Your task to perform on an android device: Show the shopping cart on walmart.com. Add beats solo 3 to the cart on walmart.com, then select checkout. Image 0: 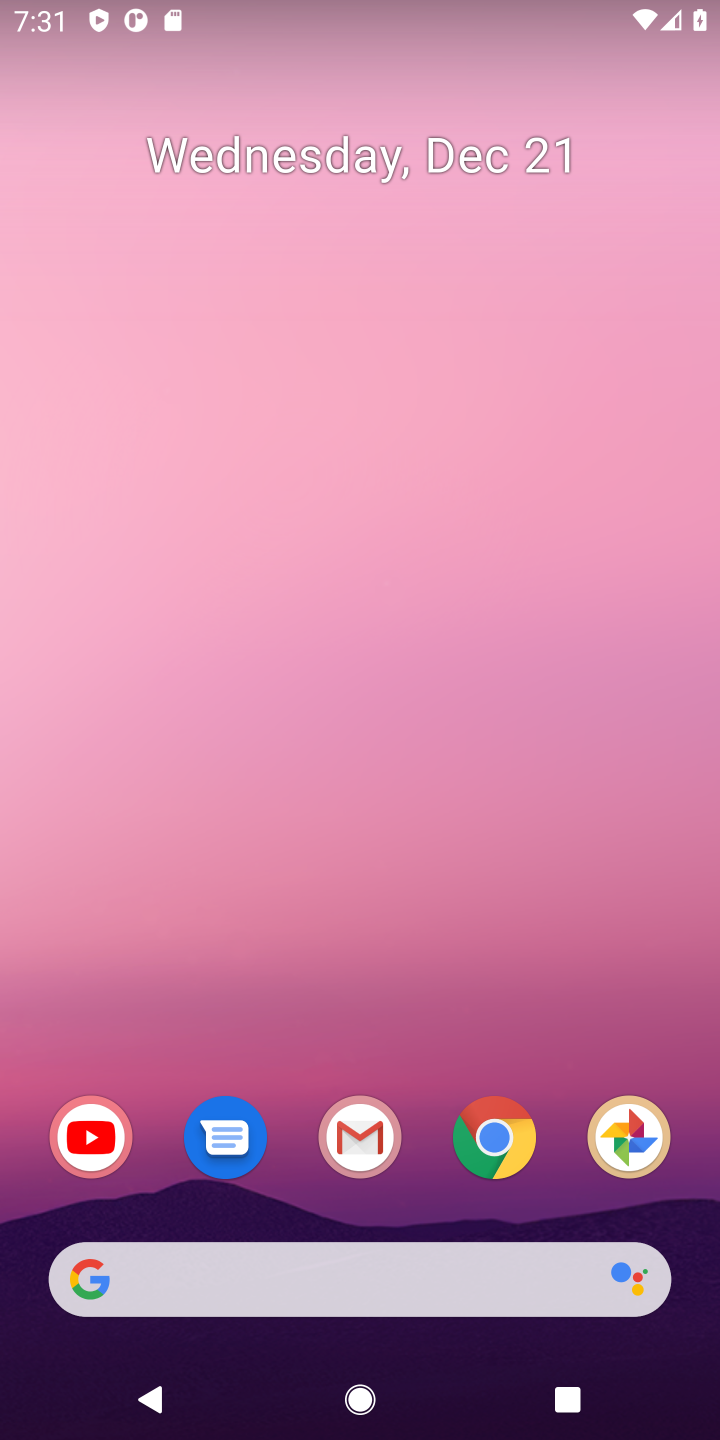
Step 0: click (497, 1124)
Your task to perform on an android device: Show the shopping cart on walmart.com. Add beats solo 3 to the cart on walmart.com, then select checkout. Image 1: 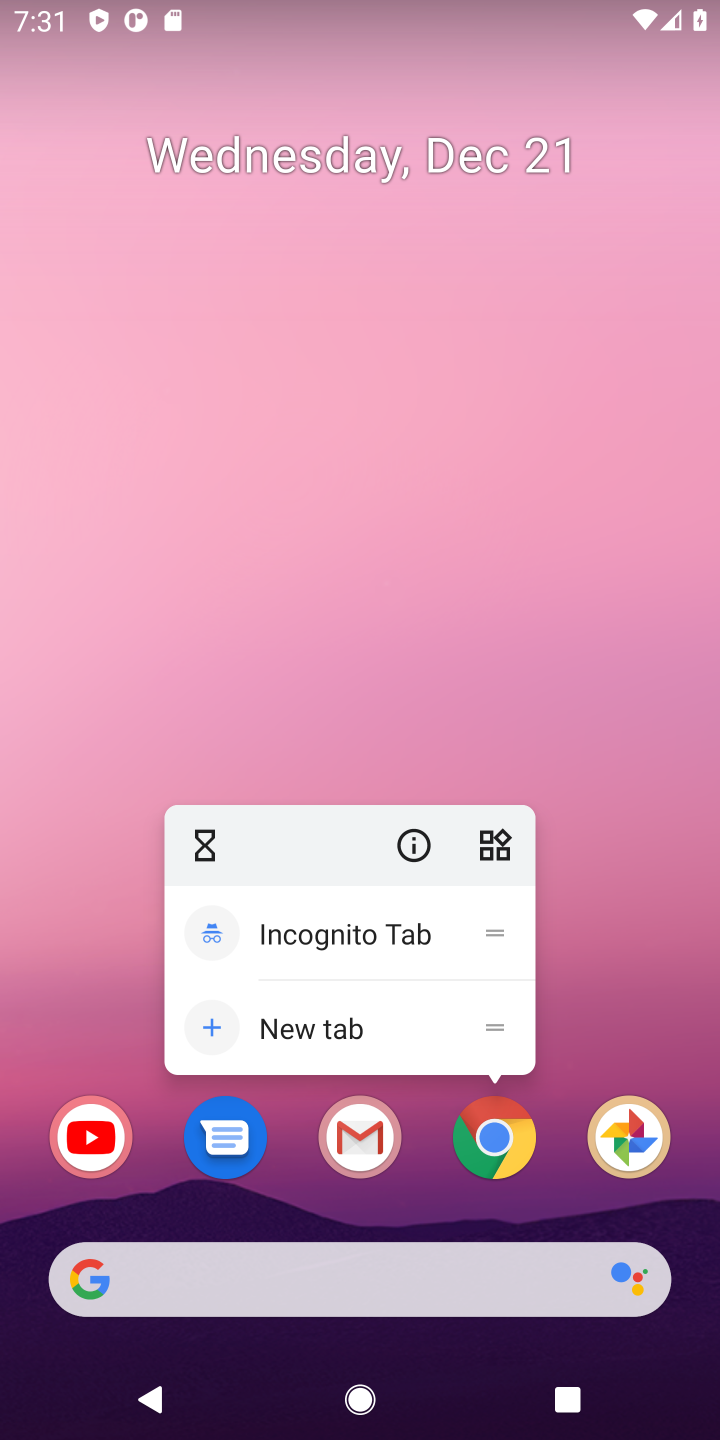
Step 1: click (497, 1124)
Your task to perform on an android device: Show the shopping cart on walmart.com. Add beats solo 3 to the cart on walmart.com, then select checkout. Image 2: 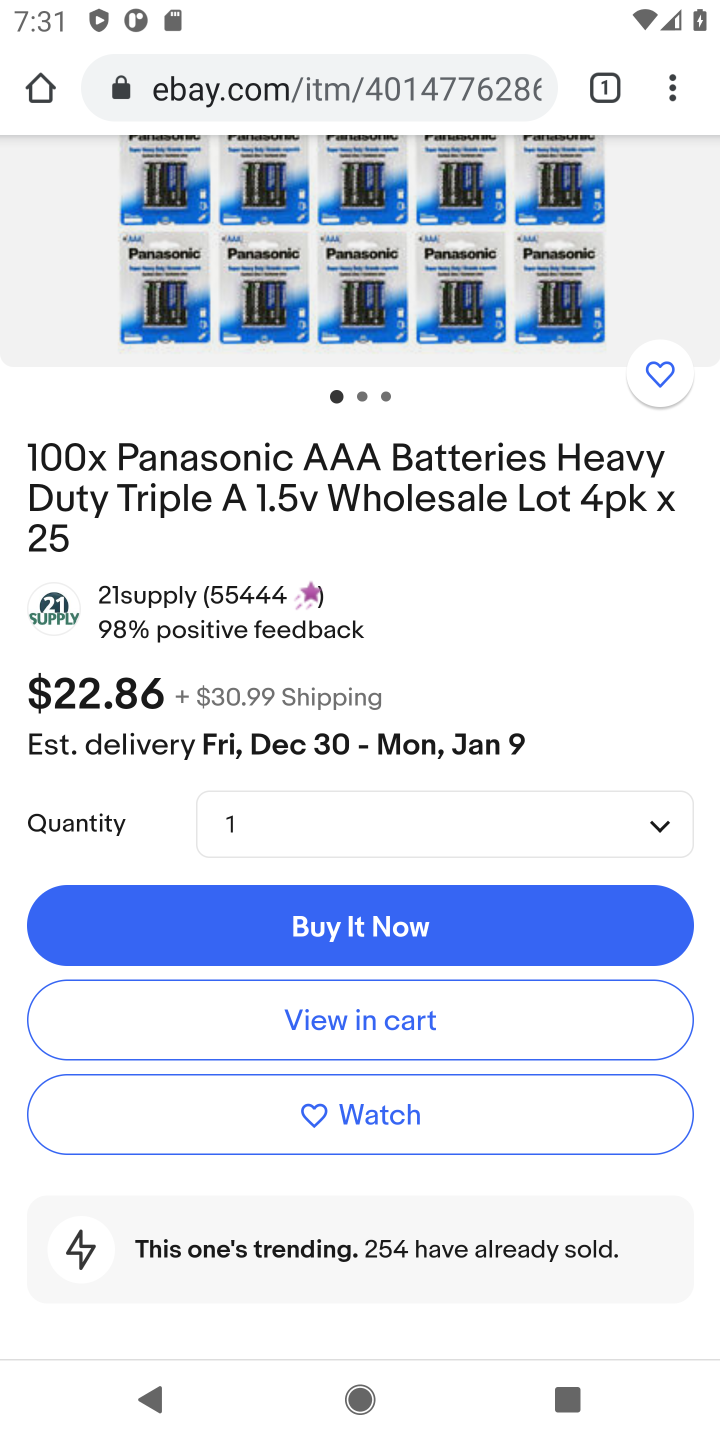
Step 2: click (248, 84)
Your task to perform on an android device: Show the shopping cart on walmart.com. Add beats solo 3 to the cart on walmart.com, then select checkout. Image 3: 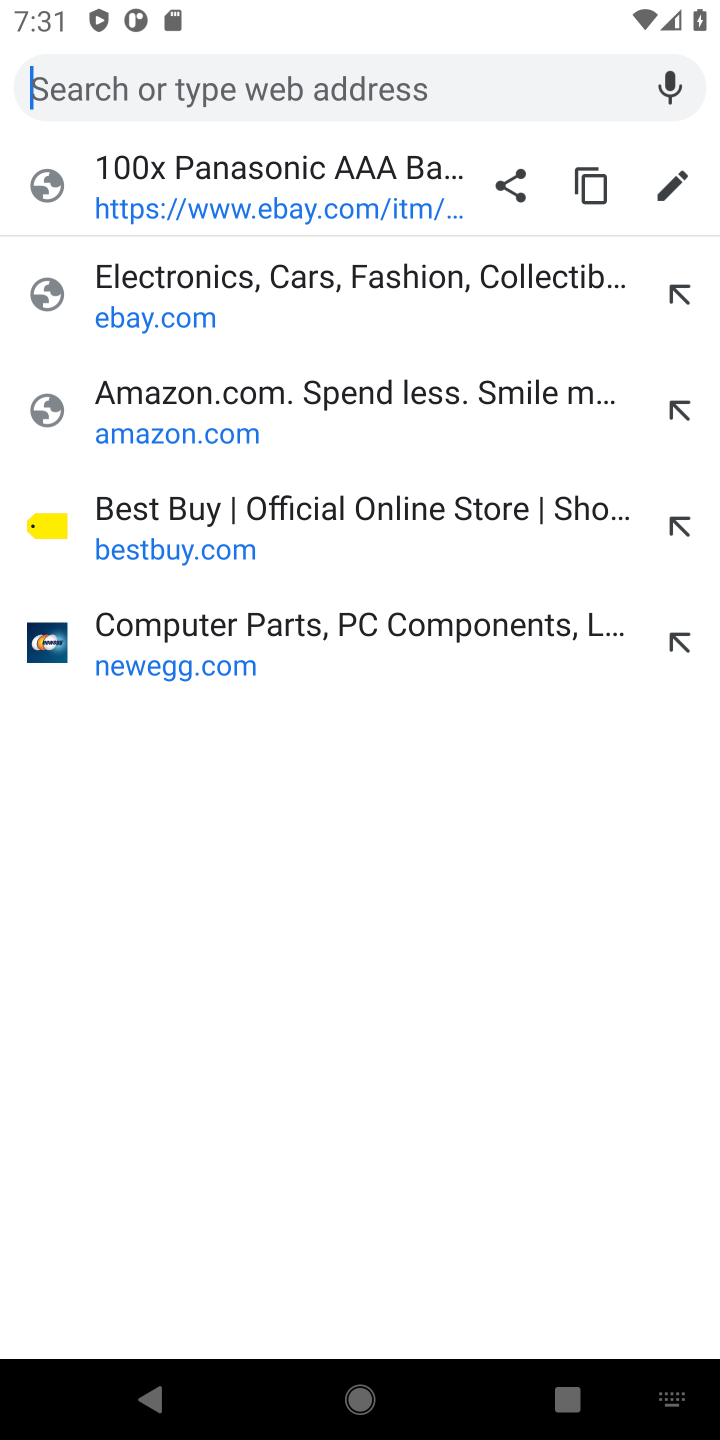
Step 3: type "walmart.com"
Your task to perform on an android device: Show the shopping cart on walmart.com. Add beats solo 3 to the cart on walmart.com, then select checkout. Image 4: 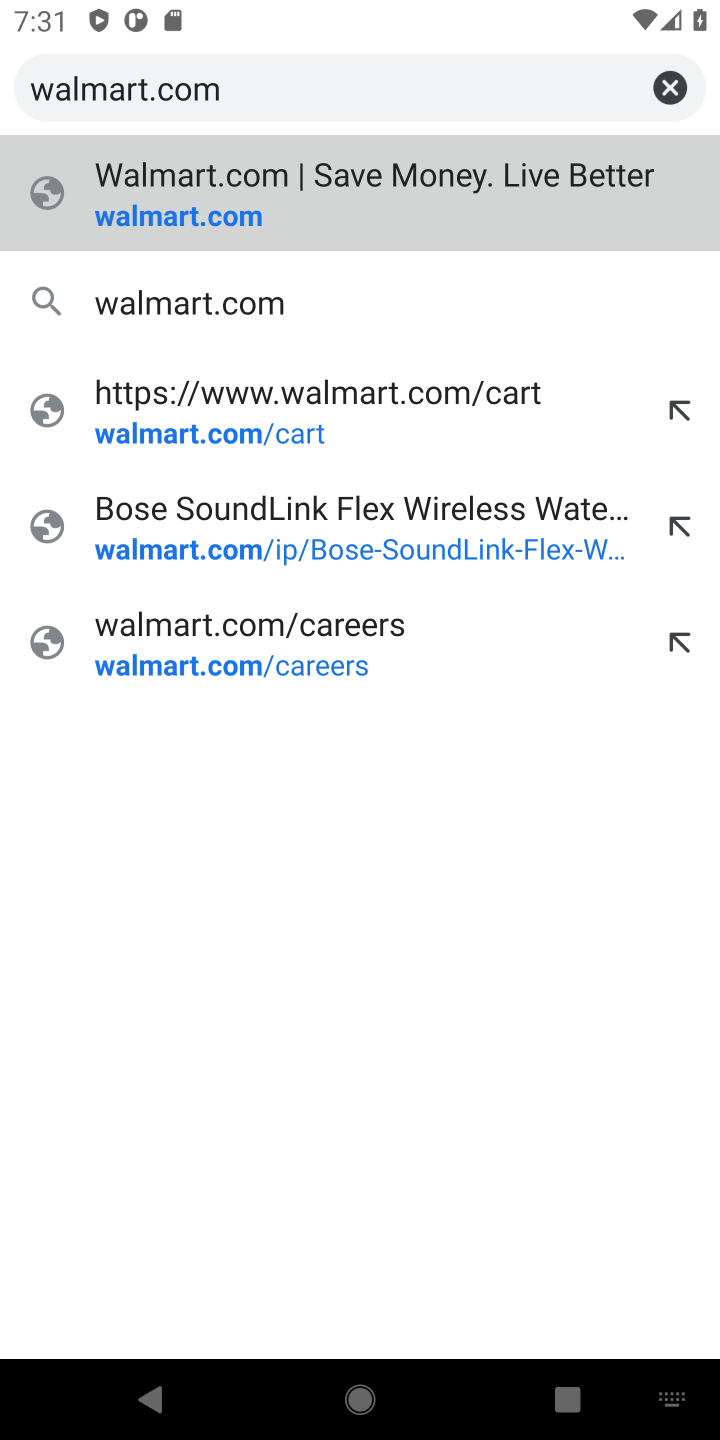
Step 4: click (184, 224)
Your task to perform on an android device: Show the shopping cart on walmart.com. Add beats solo 3 to the cart on walmart.com, then select checkout. Image 5: 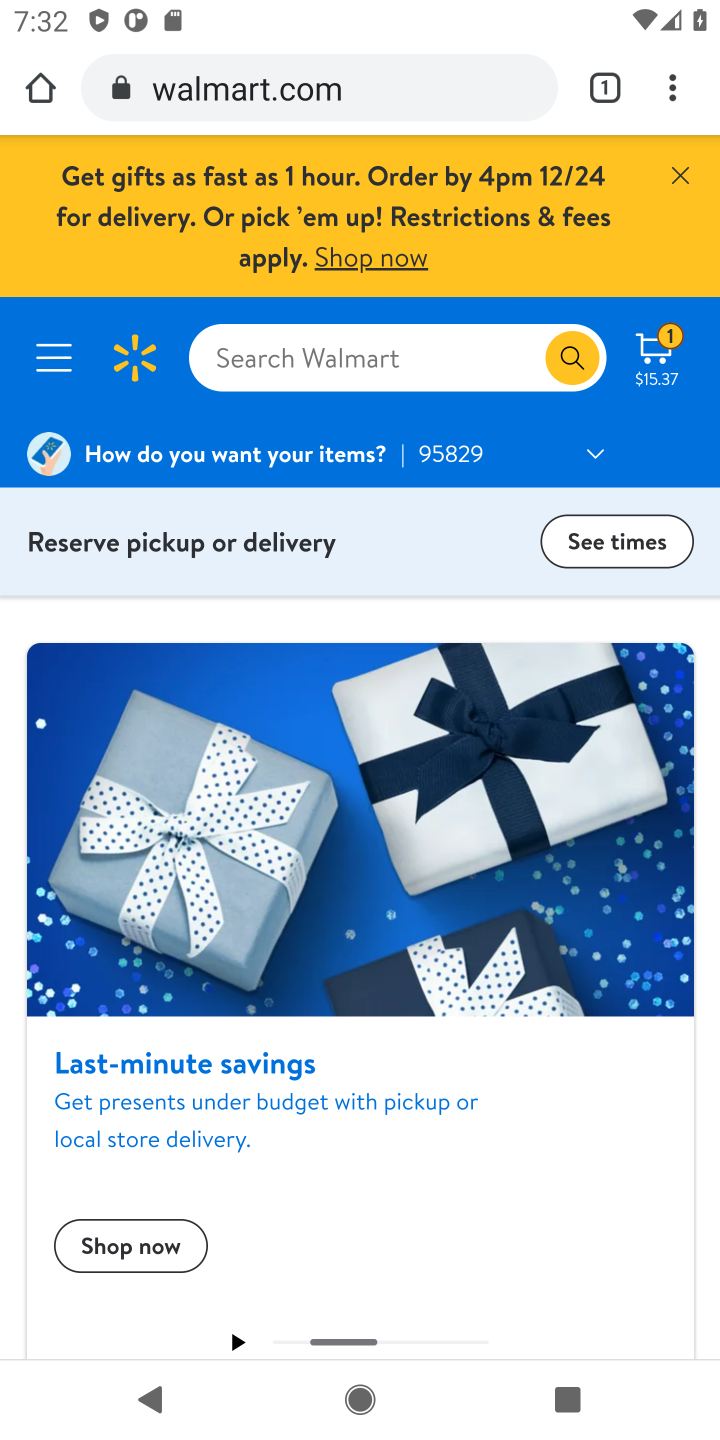
Step 5: click (645, 350)
Your task to perform on an android device: Show the shopping cart on walmart.com. Add beats solo 3 to the cart on walmart.com, then select checkout. Image 6: 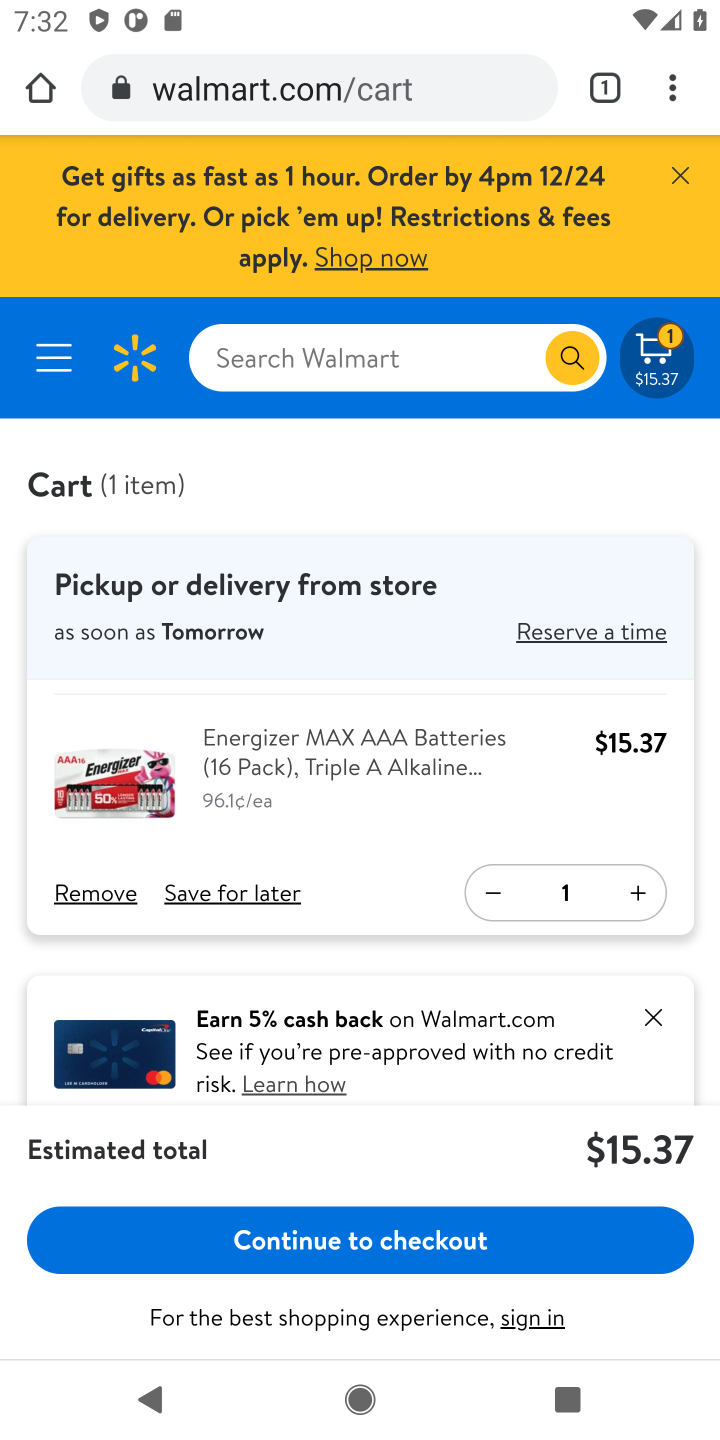
Step 6: click (267, 355)
Your task to perform on an android device: Show the shopping cart on walmart.com. Add beats solo 3 to the cart on walmart.com, then select checkout. Image 7: 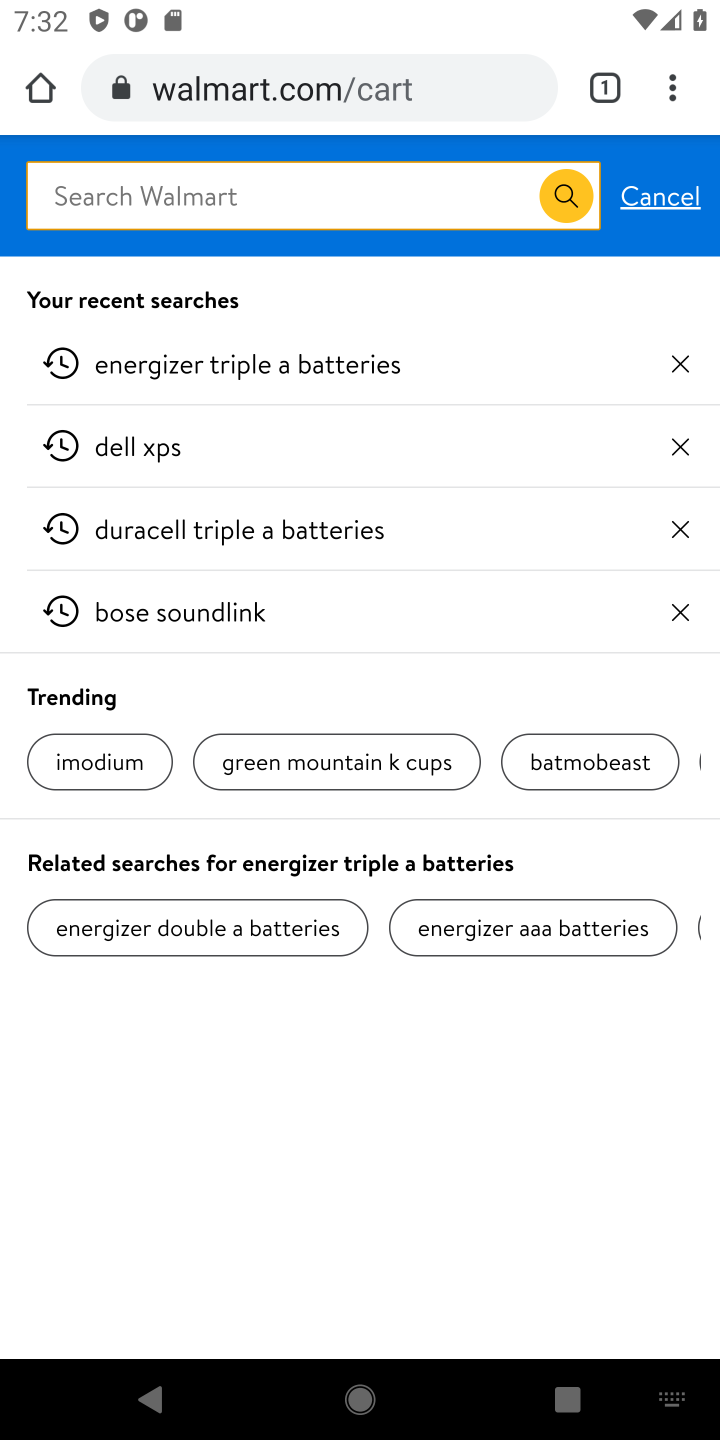
Step 7: type "beats solo 3 "
Your task to perform on an android device: Show the shopping cart on walmart.com. Add beats solo 3 to the cart on walmart.com, then select checkout. Image 8: 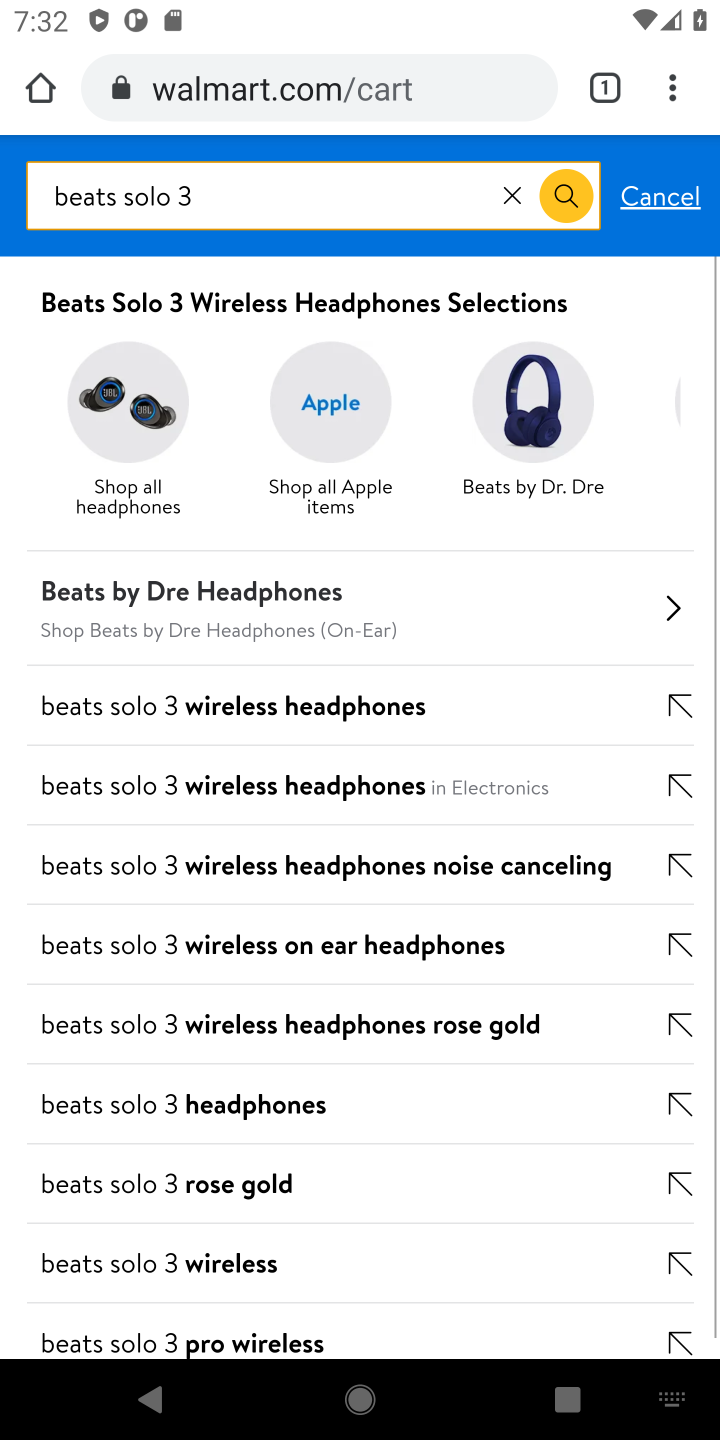
Step 8: click (559, 204)
Your task to perform on an android device: Show the shopping cart on walmart.com. Add beats solo 3 to the cart on walmart.com, then select checkout. Image 9: 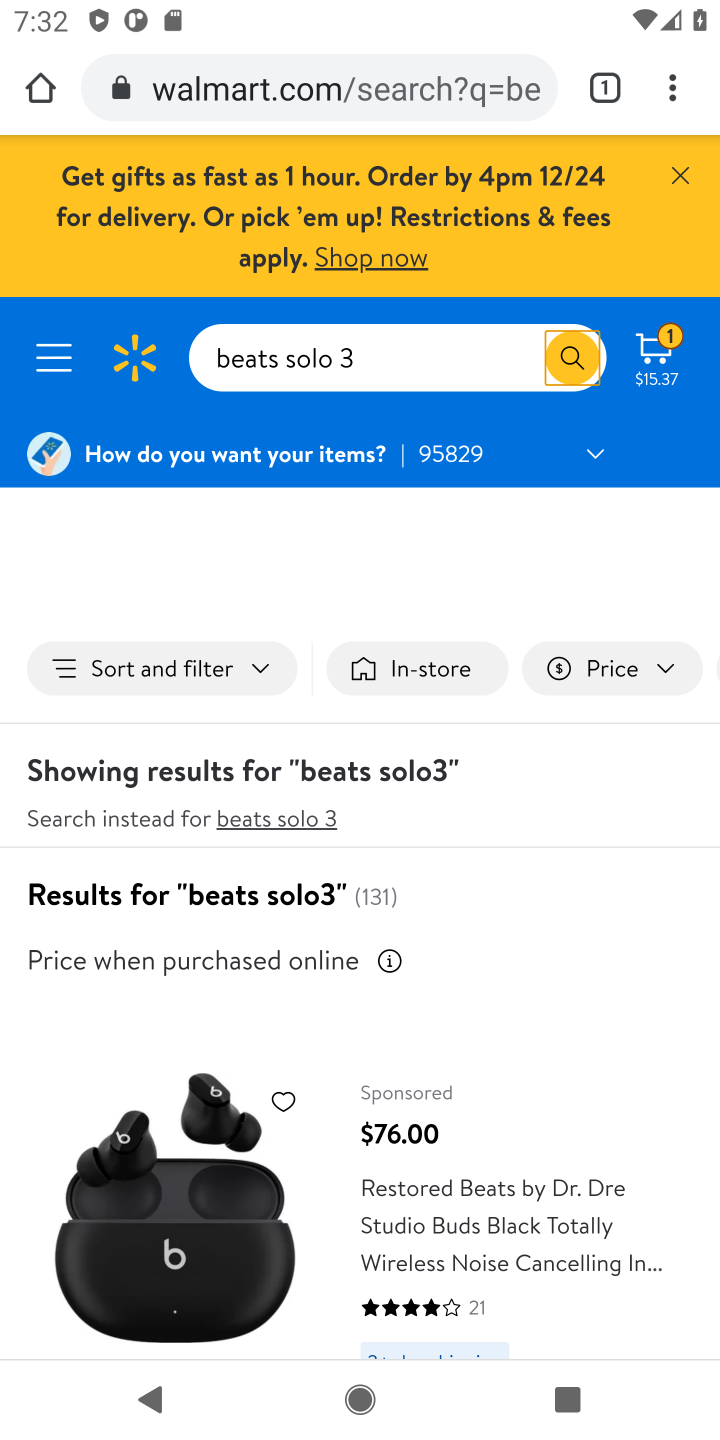
Step 9: drag from (452, 905) to (476, 525)
Your task to perform on an android device: Show the shopping cart on walmart.com. Add beats solo 3 to the cart on walmart.com, then select checkout. Image 10: 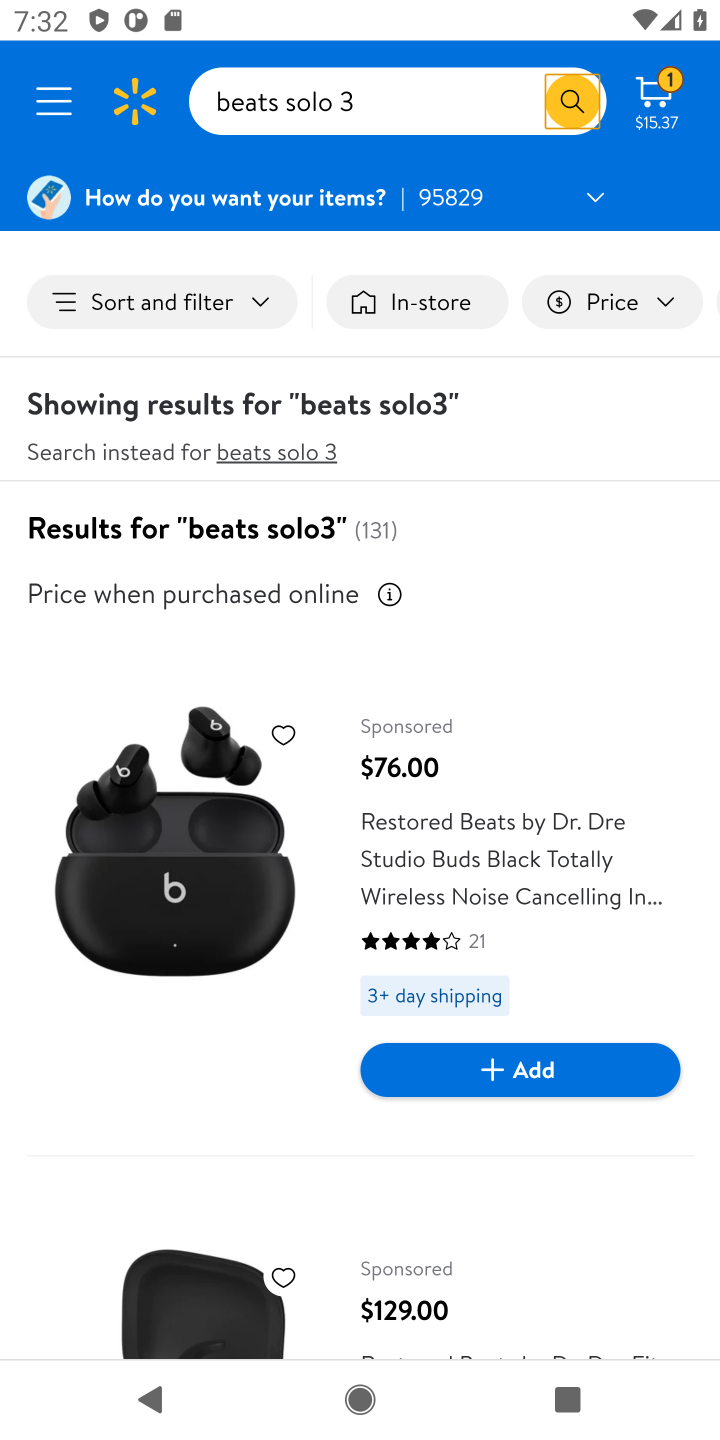
Step 10: drag from (300, 1089) to (336, 661)
Your task to perform on an android device: Show the shopping cart on walmart.com. Add beats solo 3 to the cart on walmart.com, then select checkout. Image 11: 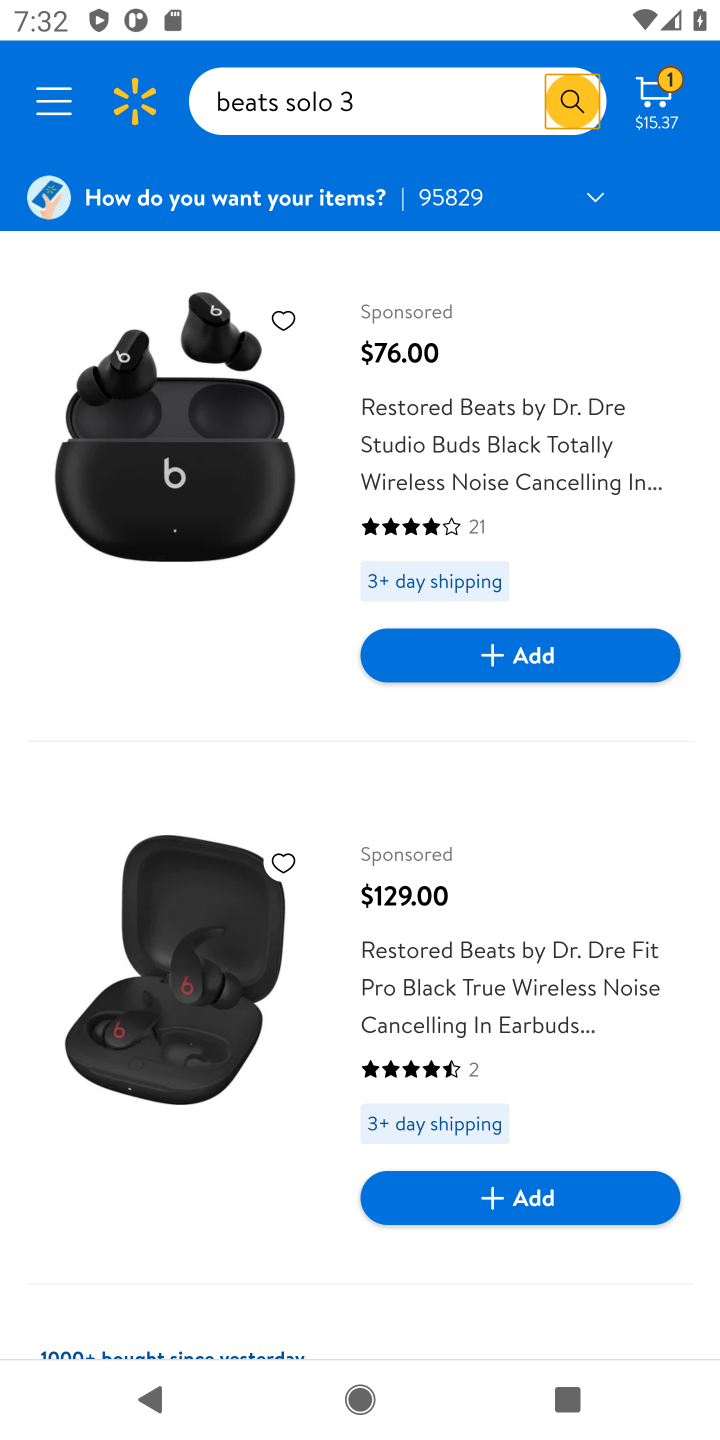
Step 11: drag from (257, 1084) to (286, 671)
Your task to perform on an android device: Show the shopping cart on walmart.com. Add beats solo 3 to the cart on walmart.com, then select checkout. Image 12: 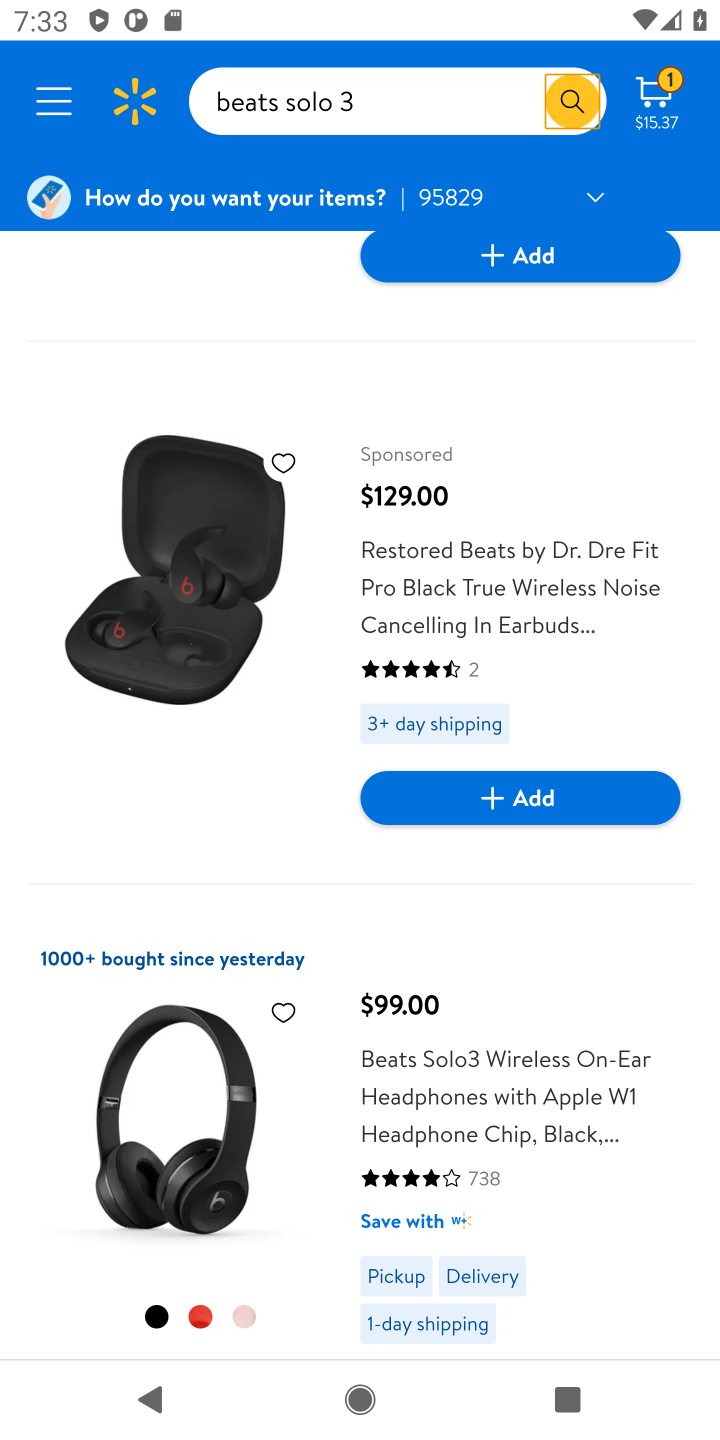
Step 12: drag from (300, 999) to (321, 650)
Your task to perform on an android device: Show the shopping cart on walmart.com. Add beats solo 3 to the cart on walmart.com, then select checkout. Image 13: 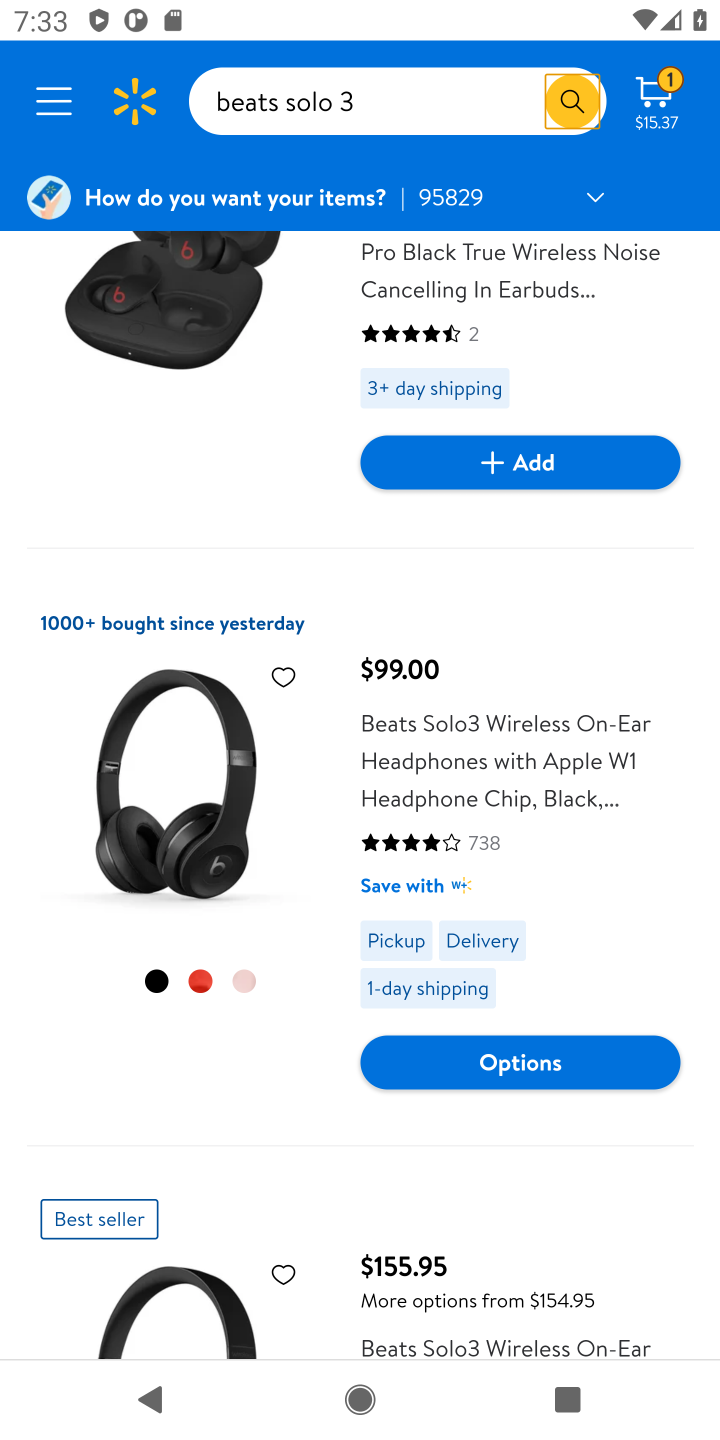
Step 13: click (477, 817)
Your task to perform on an android device: Show the shopping cart on walmart.com. Add beats solo 3 to the cart on walmart.com, then select checkout. Image 14: 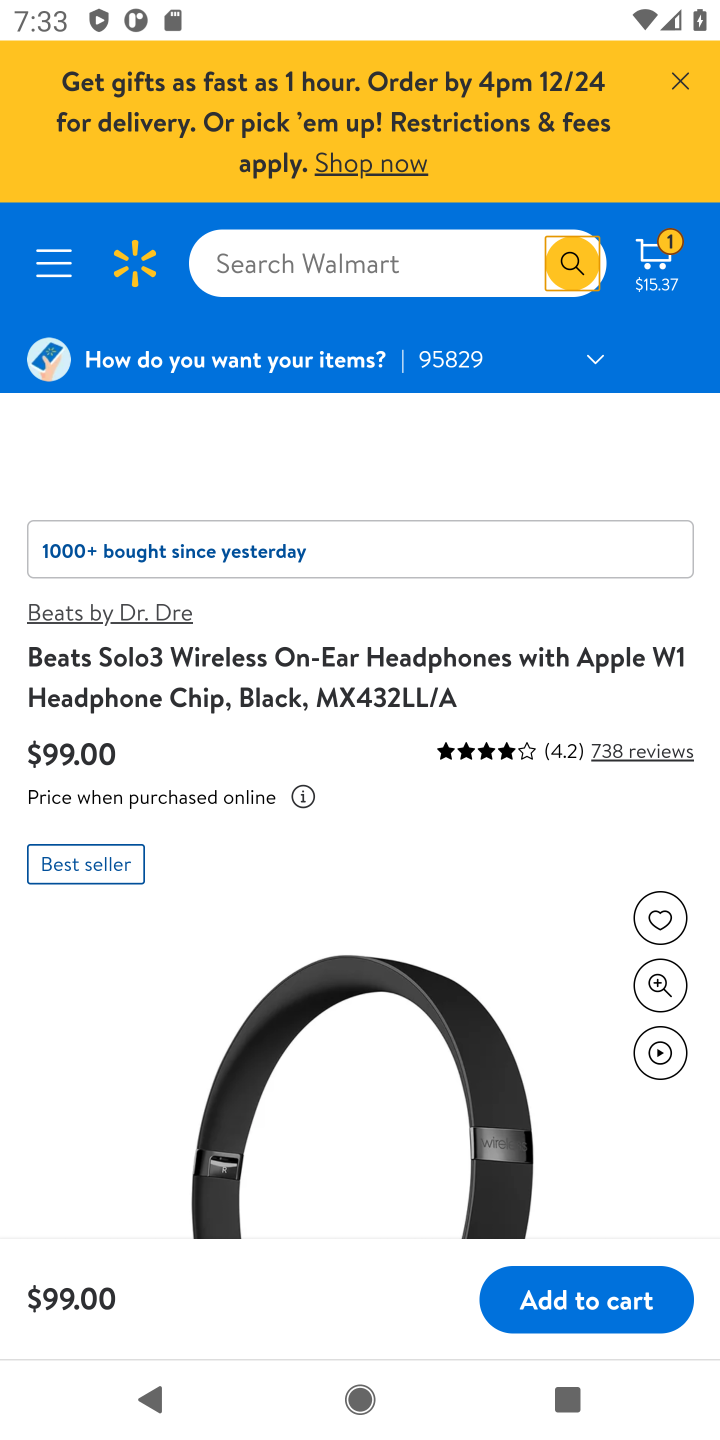
Step 14: click (571, 1306)
Your task to perform on an android device: Show the shopping cart on walmart.com. Add beats solo 3 to the cart on walmart.com, then select checkout. Image 15: 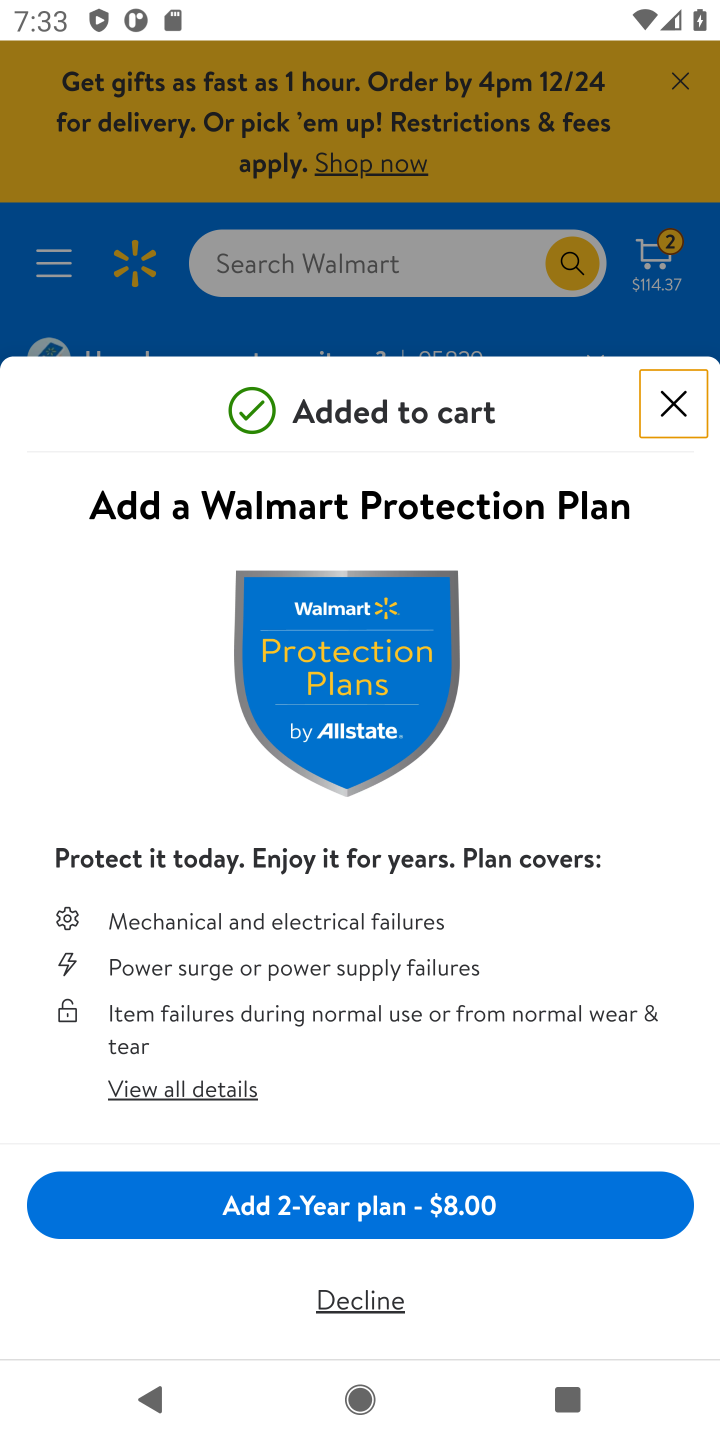
Step 15: click (668, 413)
Your task to perform on an android device: Show the shopping cart on walmart.com. Add beats solo 3 to the cart on walmart.com, then select checkout. Image 16: 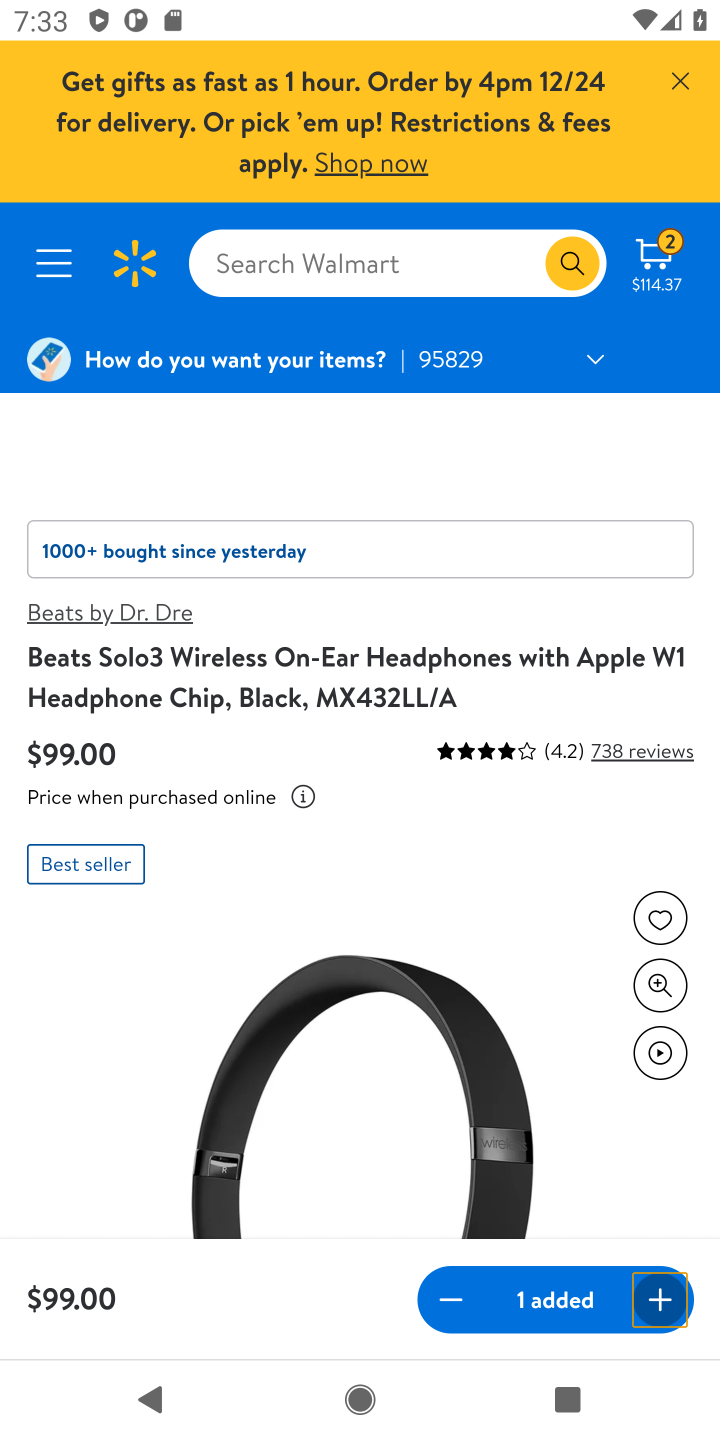
Step 16: click (650, 276)
Your task to perform on an android device: Show the shopping cart on walmart.com. Add beats solo 3 to the cart on walmart.com, then select checkout. Image 17: 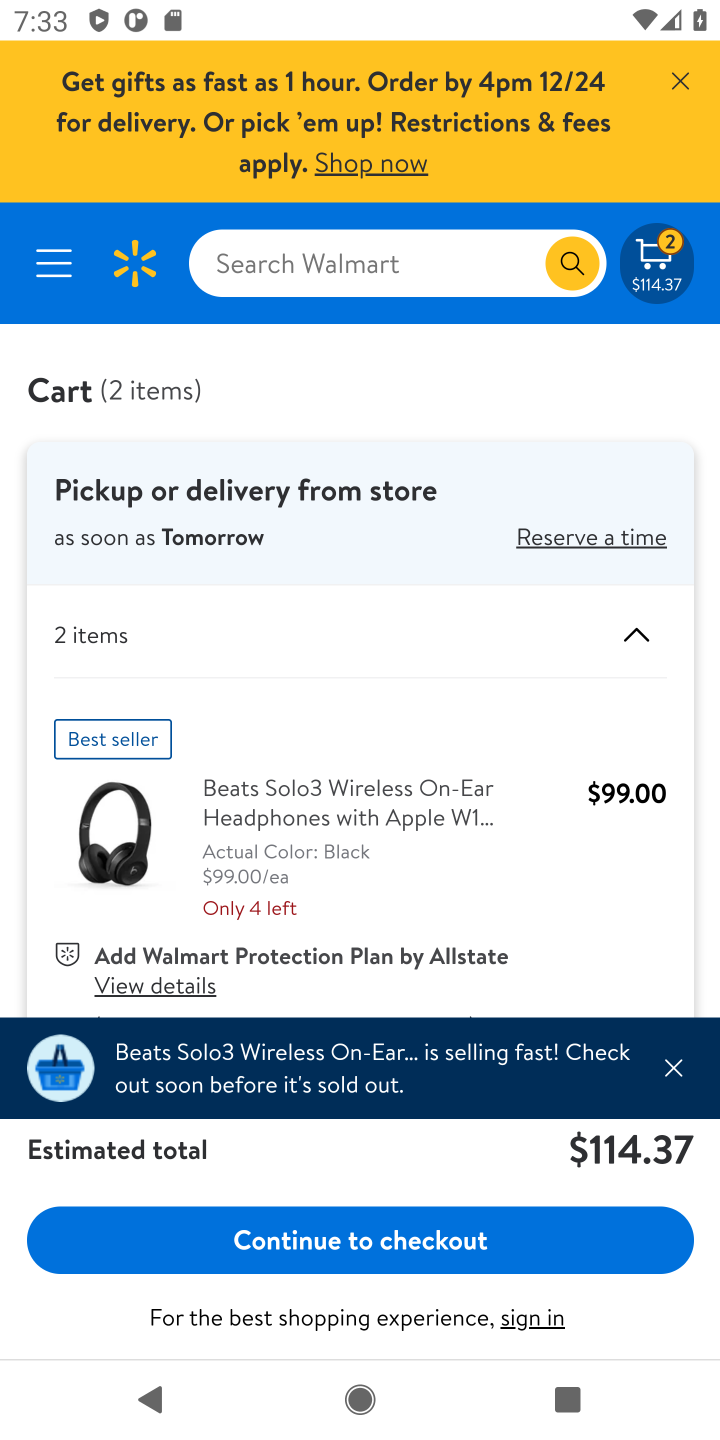
Step 17: click (344, 1254)
Your task to perform on an android device: Show the shopping cart on walmart.com. Add beats solo 3 to the cart on walmart.com, then select checkout. Image 18: 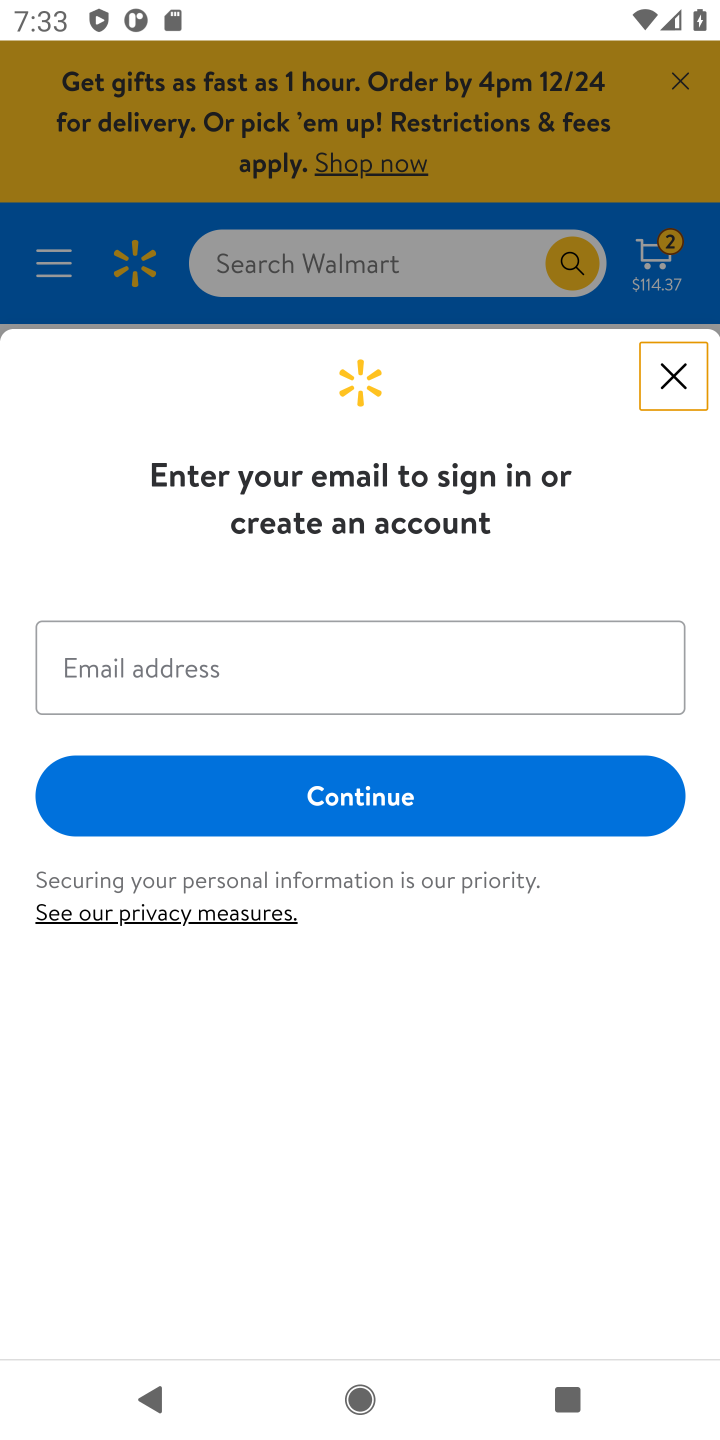
Step 18: task complete